Your task to perform on an android device: change text size in settings app Image 0: 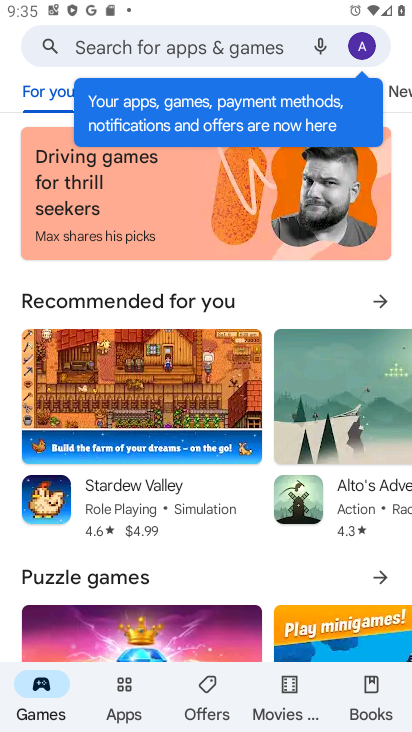
Step 0: press home button
Your task to perform on an android device: change text size in settings app Image 1: 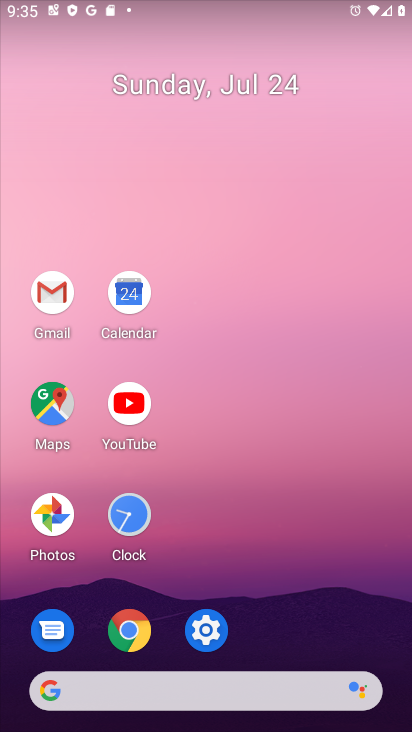
Step 1: click (203, 636)
Your task to perform on an android device: change text size in settings app Image 2: 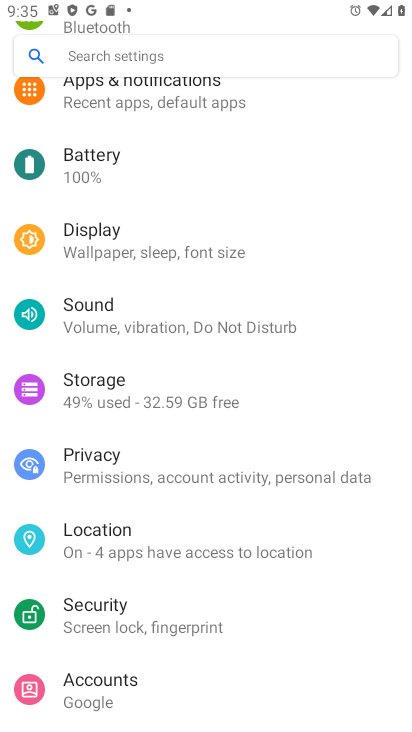
Step 2: click (84, 236)
Your task to perform on an android device: change text size in settings app Image 3: 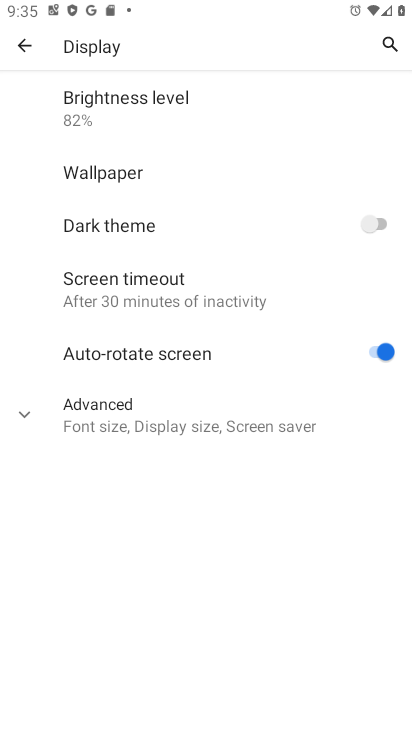
Step 3: click (86, 413)
Your task to perform on an android device: change text size in settings app Image 4: 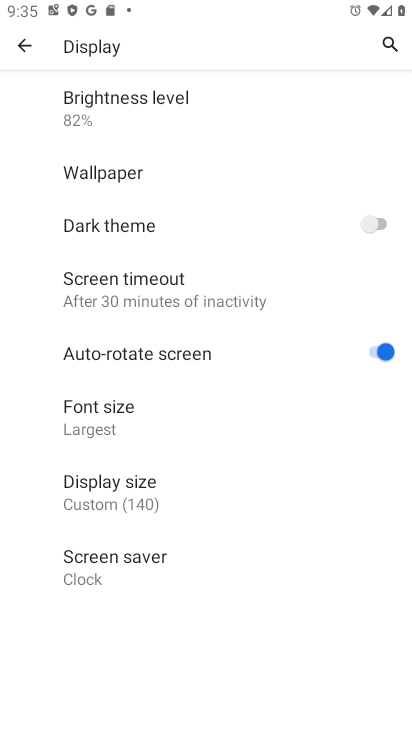
Step 4: click (102, 415)
Your task to perform on an android device: change text size in settings app Image 5: 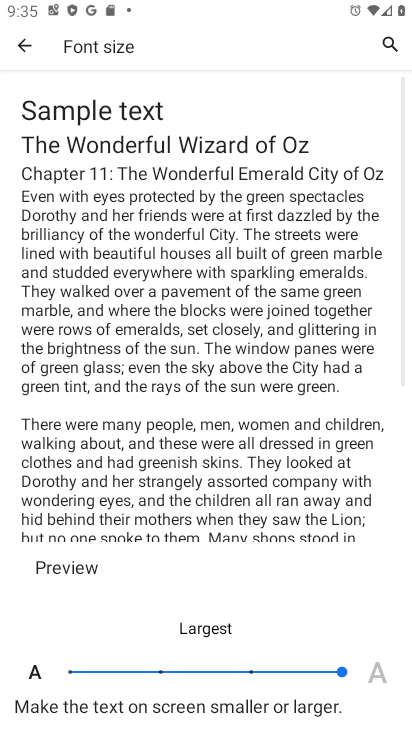
Step 5: click (210, 671)
Your task to perform on an android device: change text size in settings app Image 6: 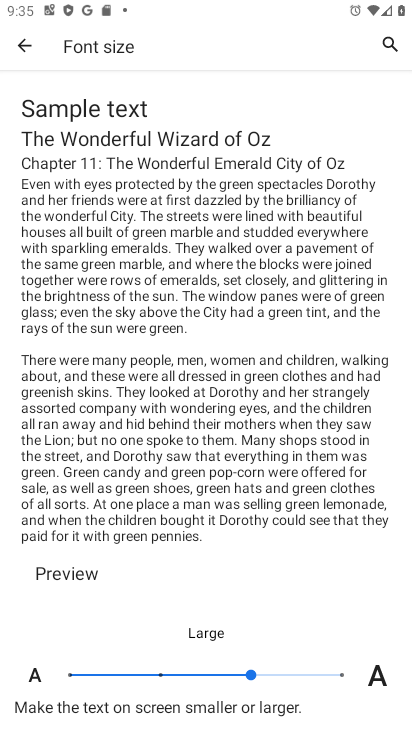
Step 6: task complete